Your task to perform on an android device: open wifi settings Image 0: 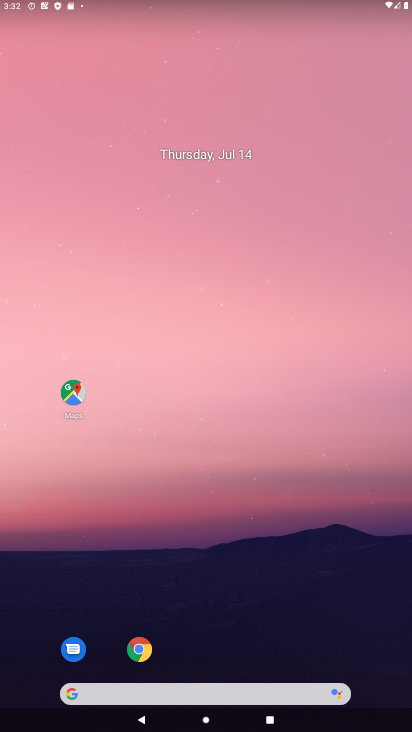
Step 0: drag from (203, 659) to (139, 229)
Your task to perform on an android device: open wifi settings Image 1: 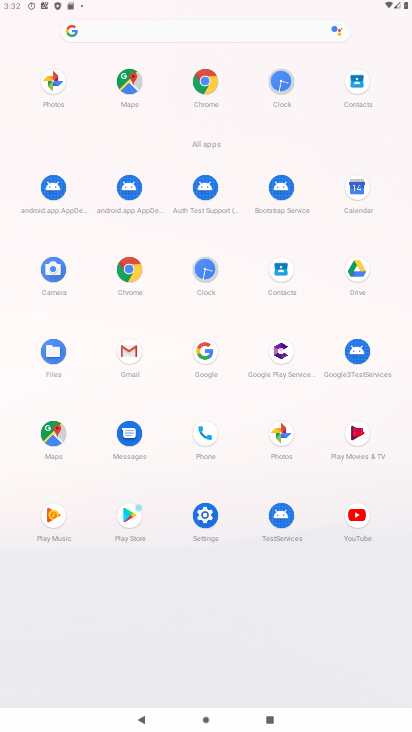
Step 1: click (212, 537)
Your task to perform on an android device: open wifi settings Image 2: 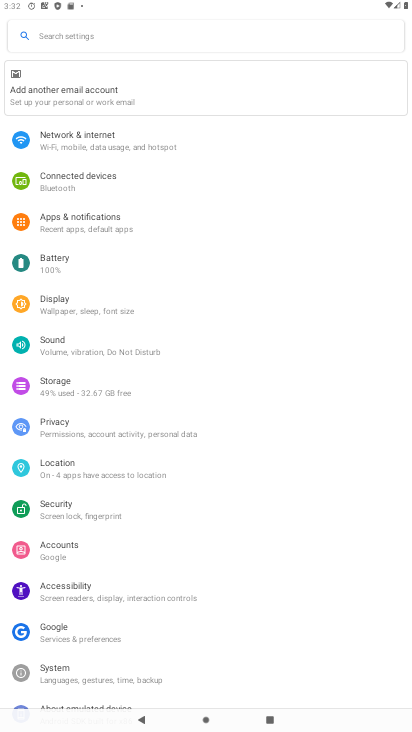
Step 2: click (126, 136)
Your task to perform on an android device: open wifi settings Image 3: 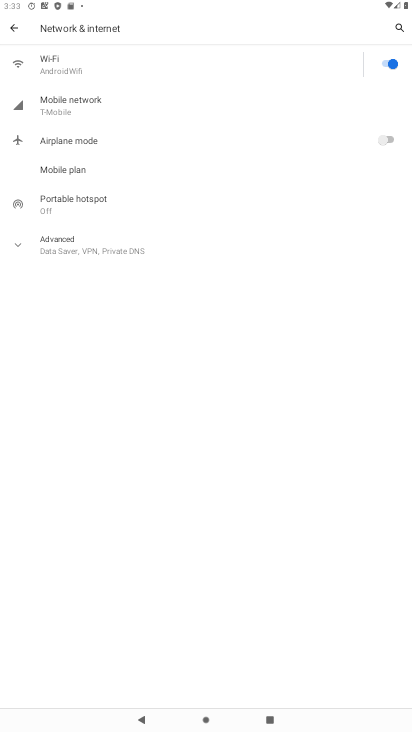
Step 3: click (78, 59)
Your task to perform on an android device: open wifi settings Image 4: 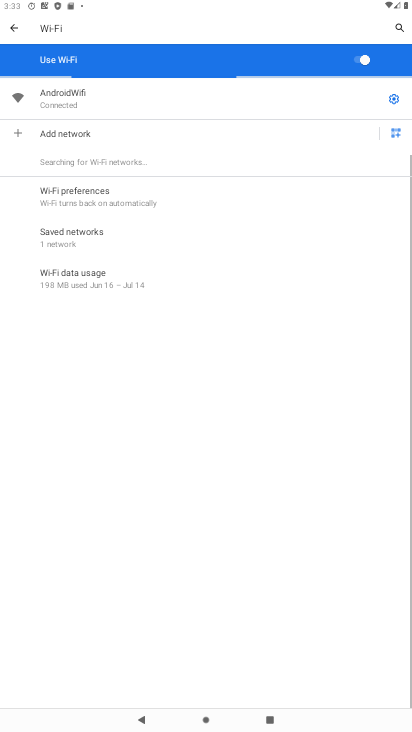
Step 4: task complete